Your task to perform on an android device: Search for vegetarian restaurants on Maps Image 0: 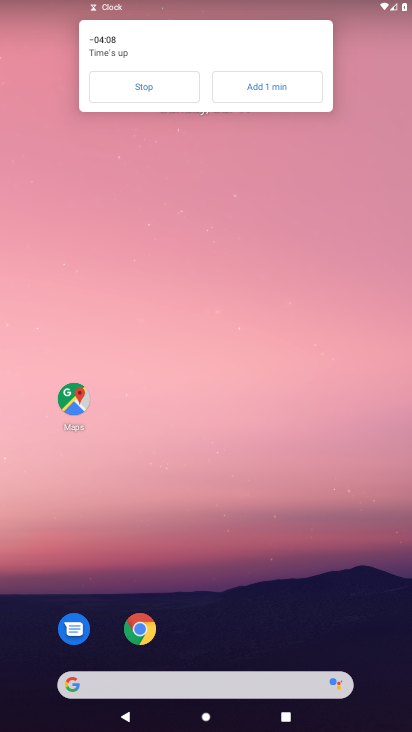
Step 0: drag from (240, 630) to (252, 82)
Your task to perform on an android device: Search for vegetarian restaurants on Maps Image 1: 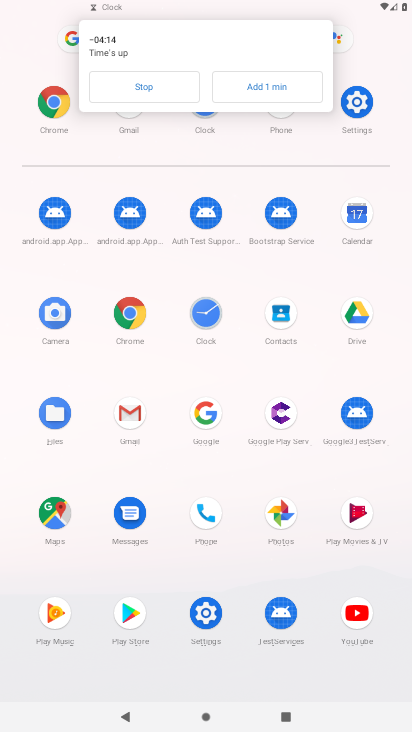
Step 1: click (53, 508)
Your task to perform on an android device: Search for vegetarian restaurants on Maps Image 2: 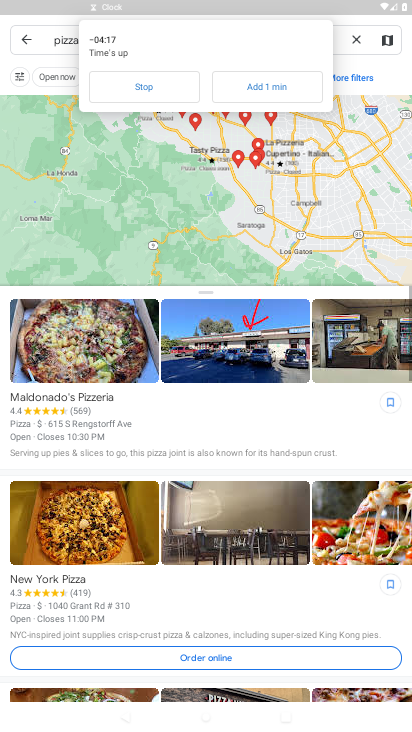
Step 2: click (112, 96)
Your task to perform on an android device: Search for vegetarian restaurants on Maps Image 3: 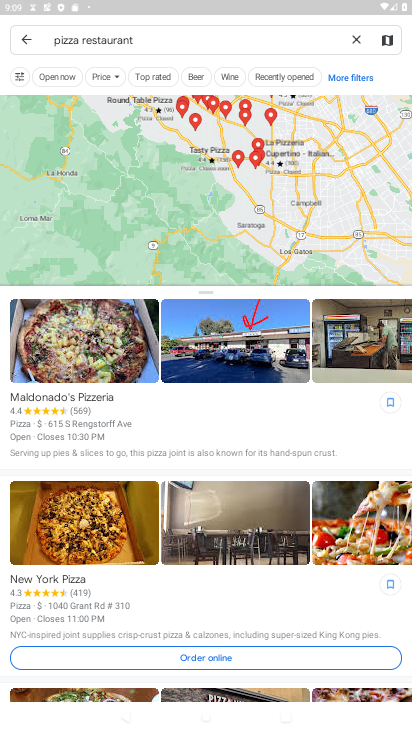
Step 3: click (355, 37)
Your task to perform on an android device: Search for vegetarian restaurants on Maps Image 4: 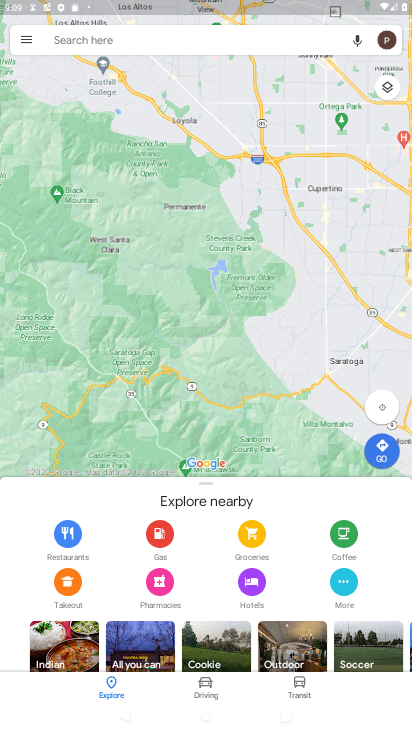
Step 4: click (186, 37)
Your task to perform on an android device: Search for vegetarian restaurants on Maps Image 5: 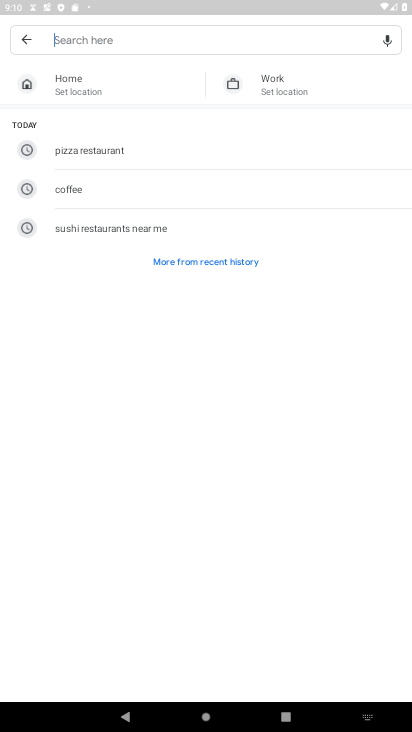
Step 5: type "vegetarian restaurants"
Your task to perform on an android device: Search for vegetarian restaurants on Maps Image 6: 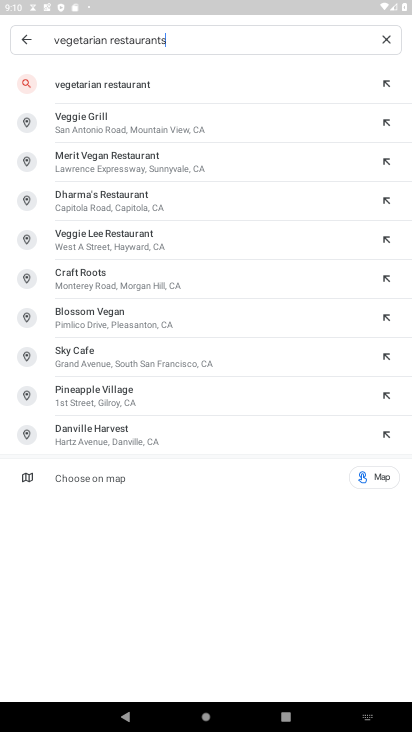
Step 6: click (111, 85)
Your task to perform on an android device: Search for vegetarian restaurants on Maps Image 7: 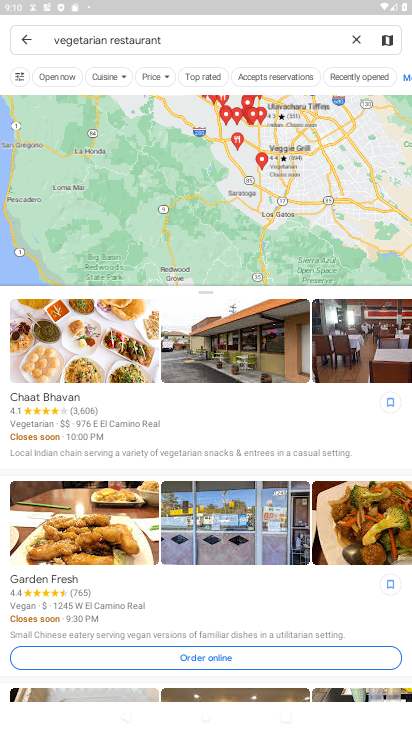
Step 7: task complete